Your task to perform on an android device: Search for "acer nitro" on bestbuy, select the first entry, add it to the cart, then select checkout. Image 0: 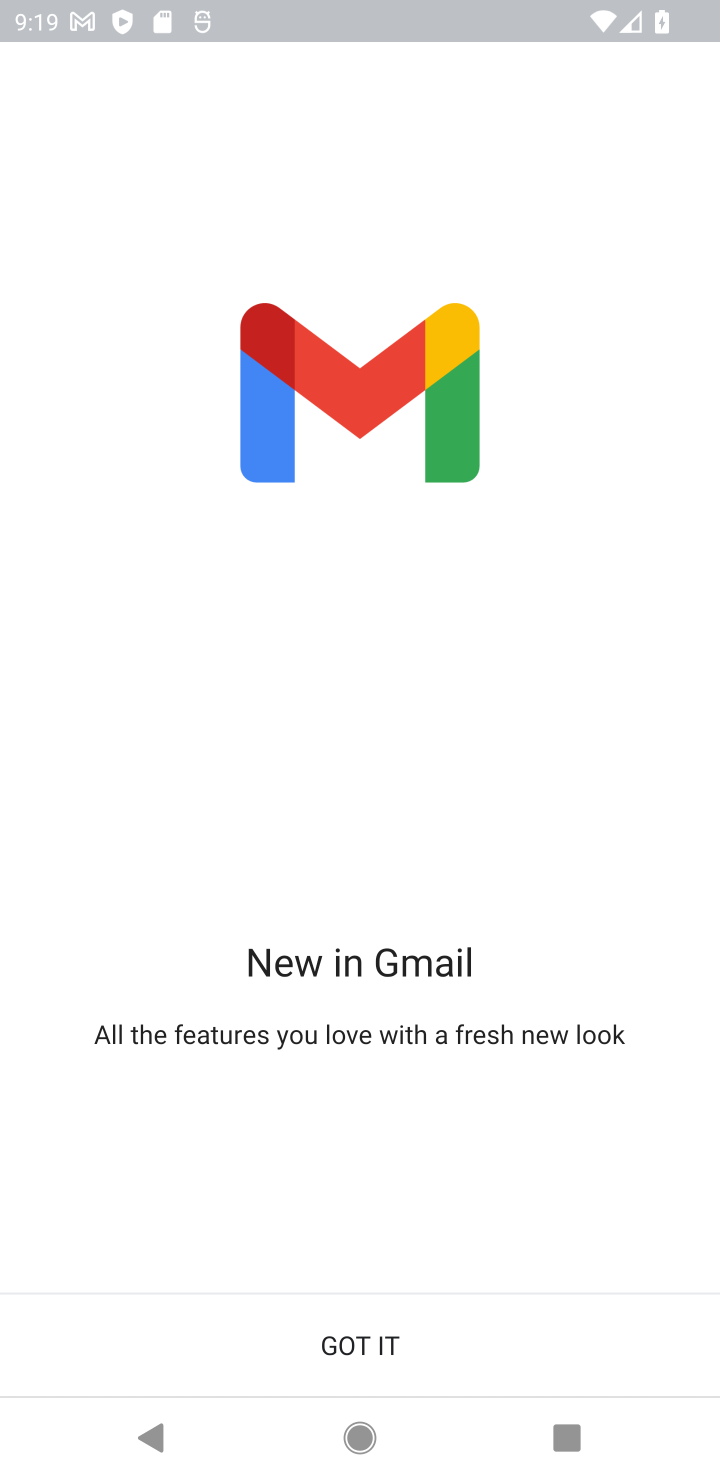
Step 0: press home button
Your task to perform on an android device: Search for "acer nitro" on bestbuy, select the first entry, add it to the cart, then select checkout. Image 1: 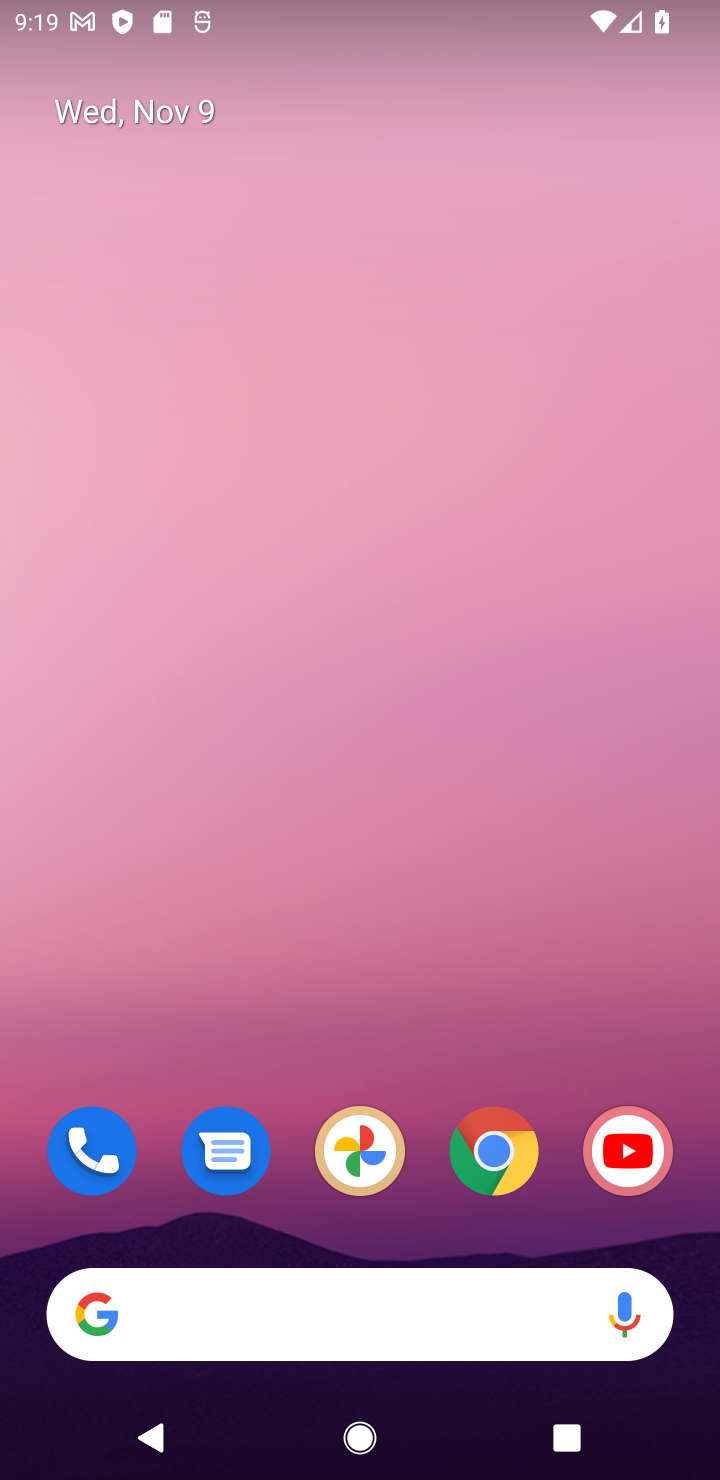
Step 1: click (485, 1148)
Your task to perform on an android device: Search for "acer nitro" on bestbuy, select the first entry, add it to the cart, then select checkout. Image 2: 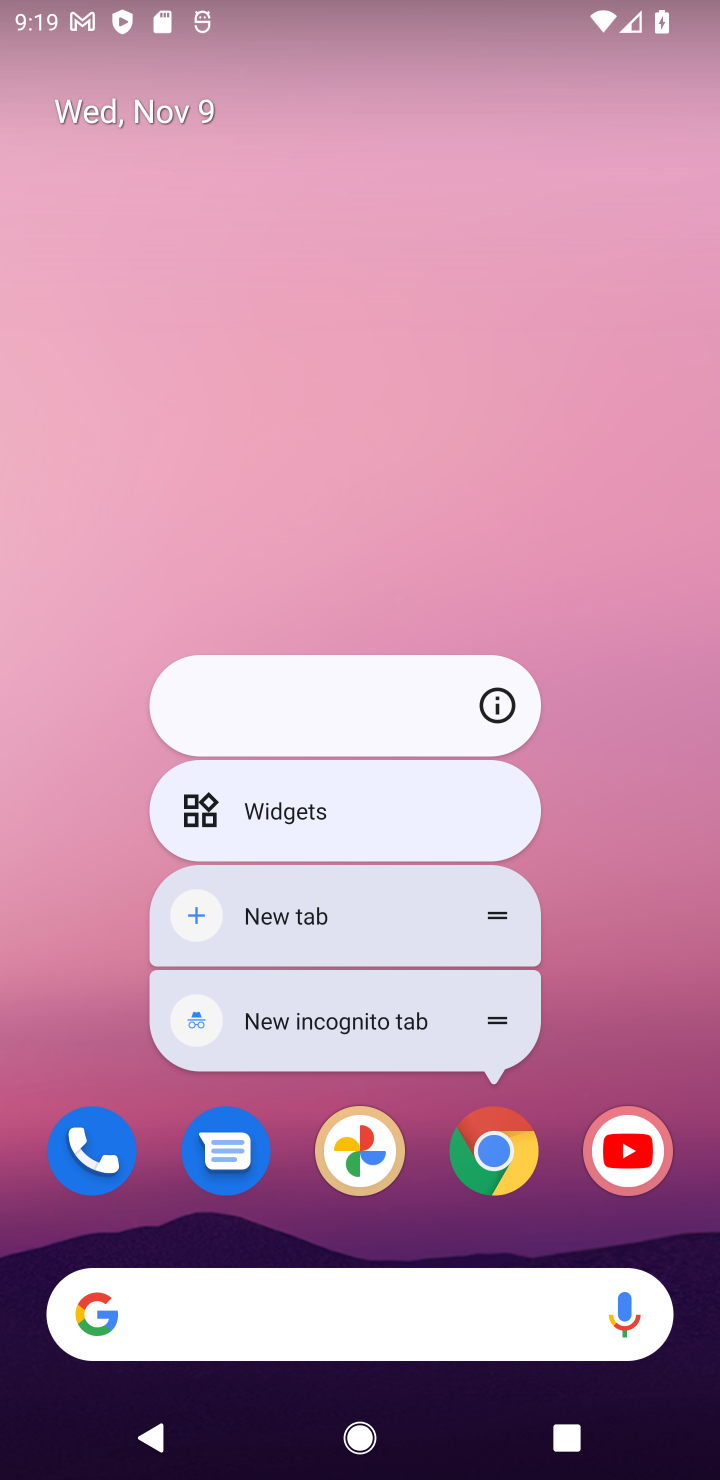
Step 2: click (502, 1171)
Your task to perform on an android device: Search for "acer nitro" on bestbuy, select the first entry, add it to the cart, then select checkout. Image 3: 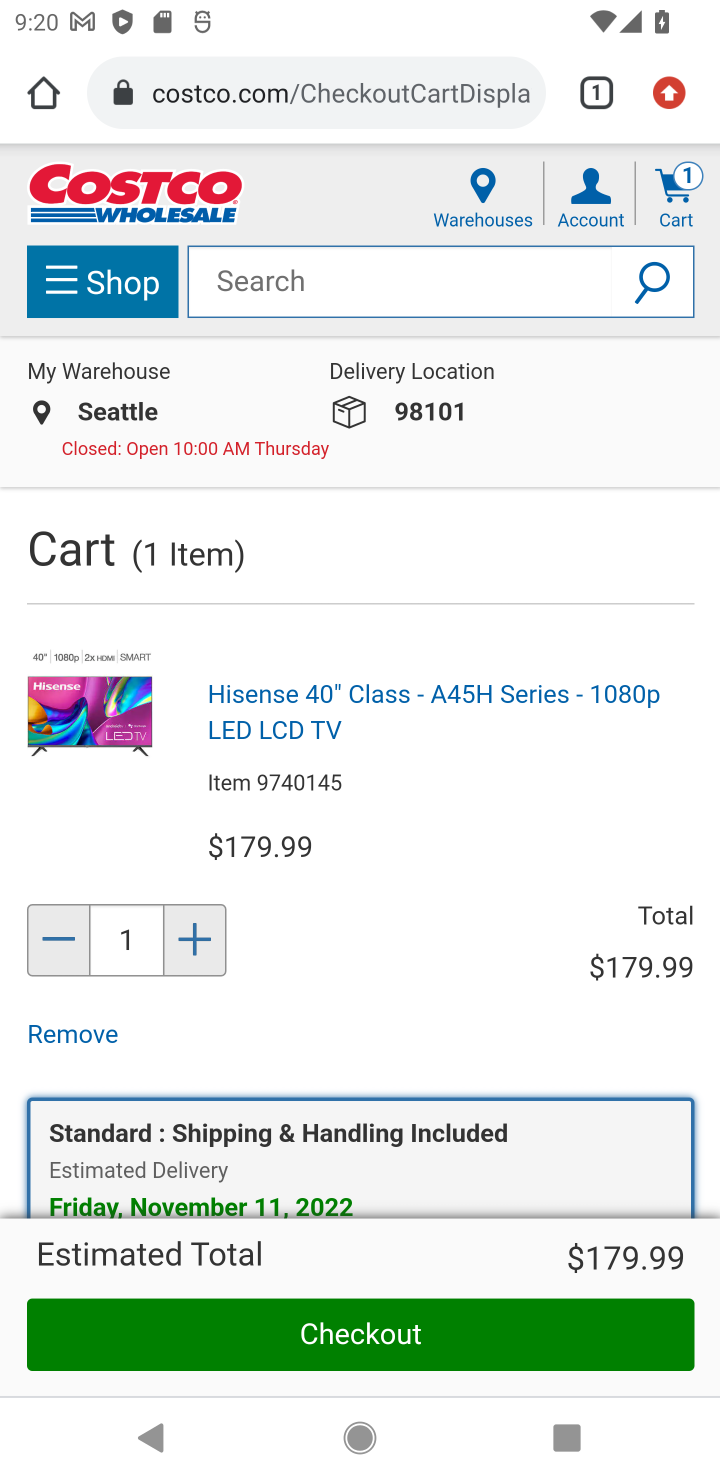
Step 3: click (234, 100)
Your task to perform on an android device: Search for "acer nitro" on bestbuy, select the first entry, add it to the cart, then select checkout. Image 4: 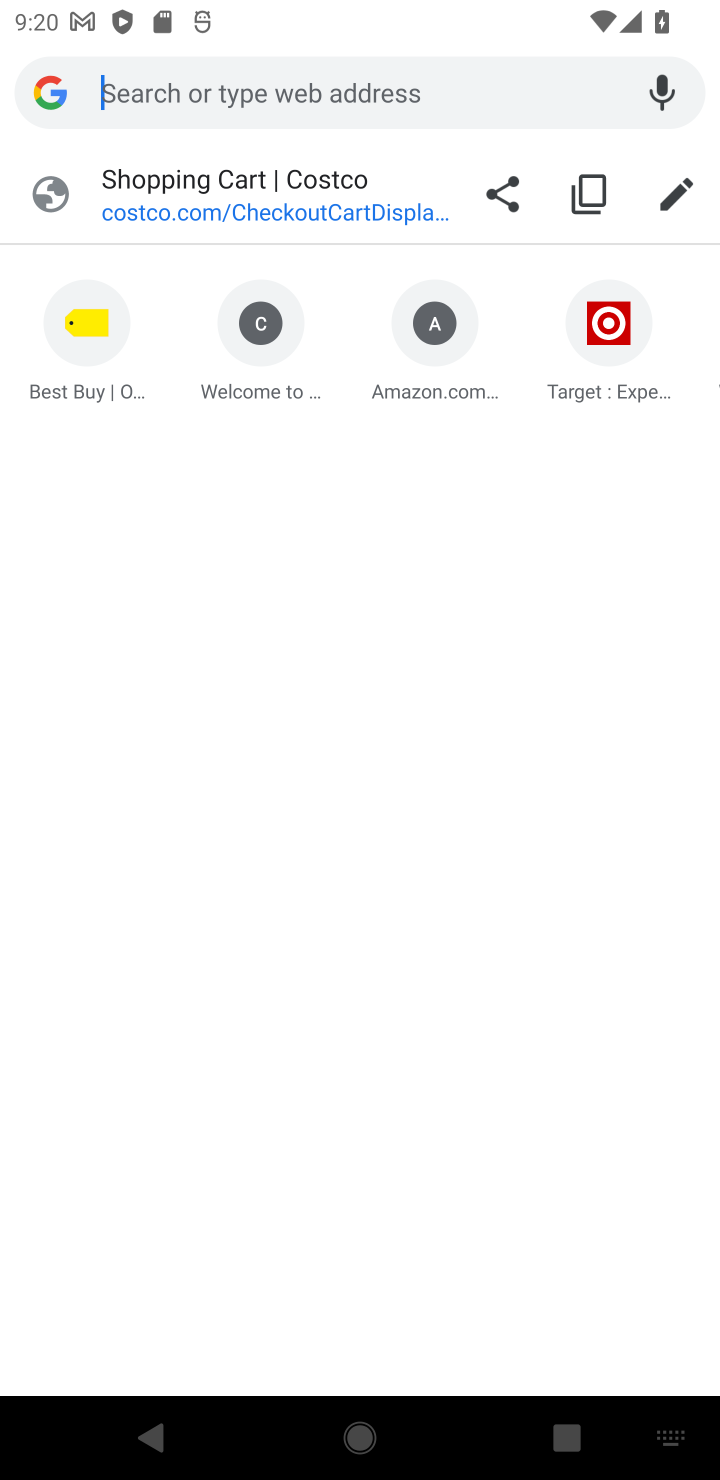
Step 4: type "bestbuy"
Your task to perform on an android device: Search for "acer nitro" on bestbuy, select the first entry, add it to the cart, then select checkout. Image 5: 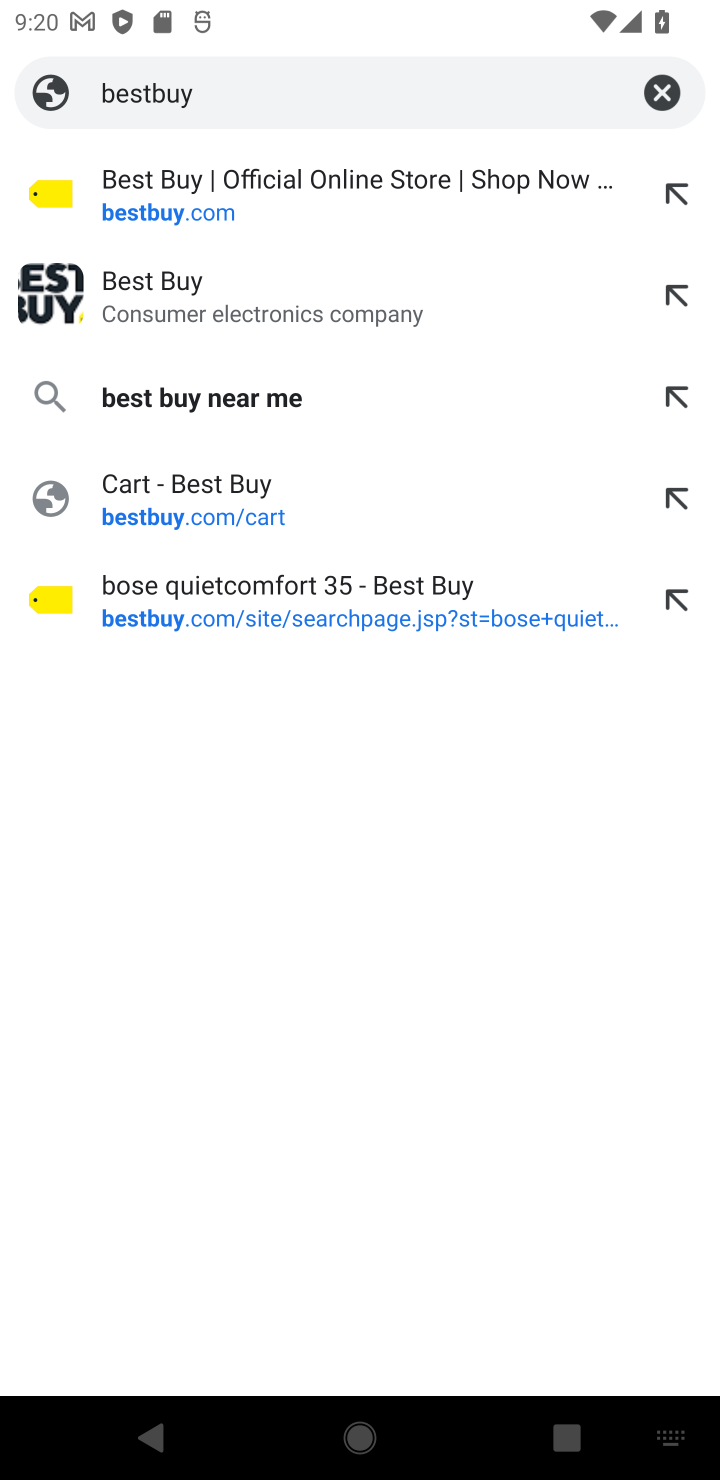
Step 5: press enter
Your task to perform on an android device: Search for "acer nitro" on bestbuy, select the first entry, add it to the cart, then select checkout. Image 6: 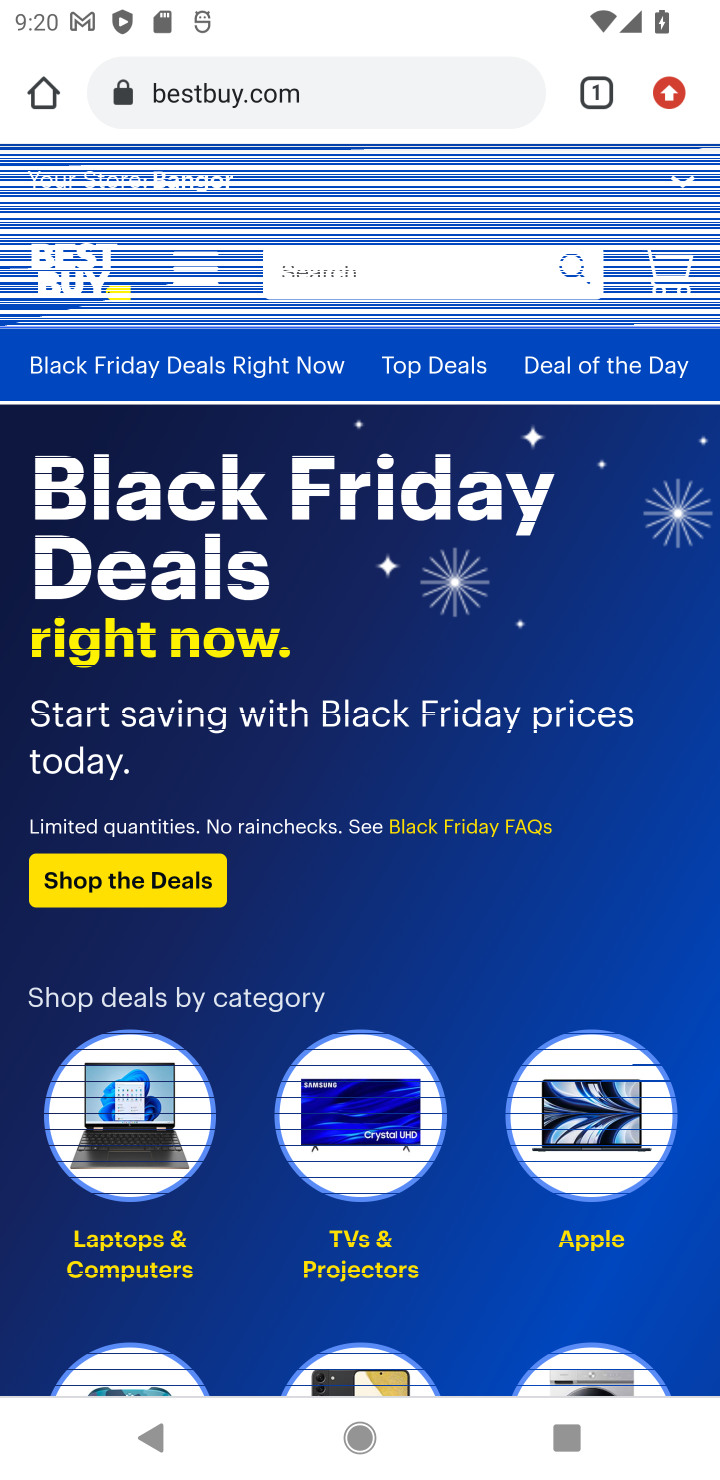
Step 6: click (416, 275)
Your task to perform on an android device: Search for "acer nitro" on bestbuy, select the first entry, add it to the cart, then select checkout. Image 7: 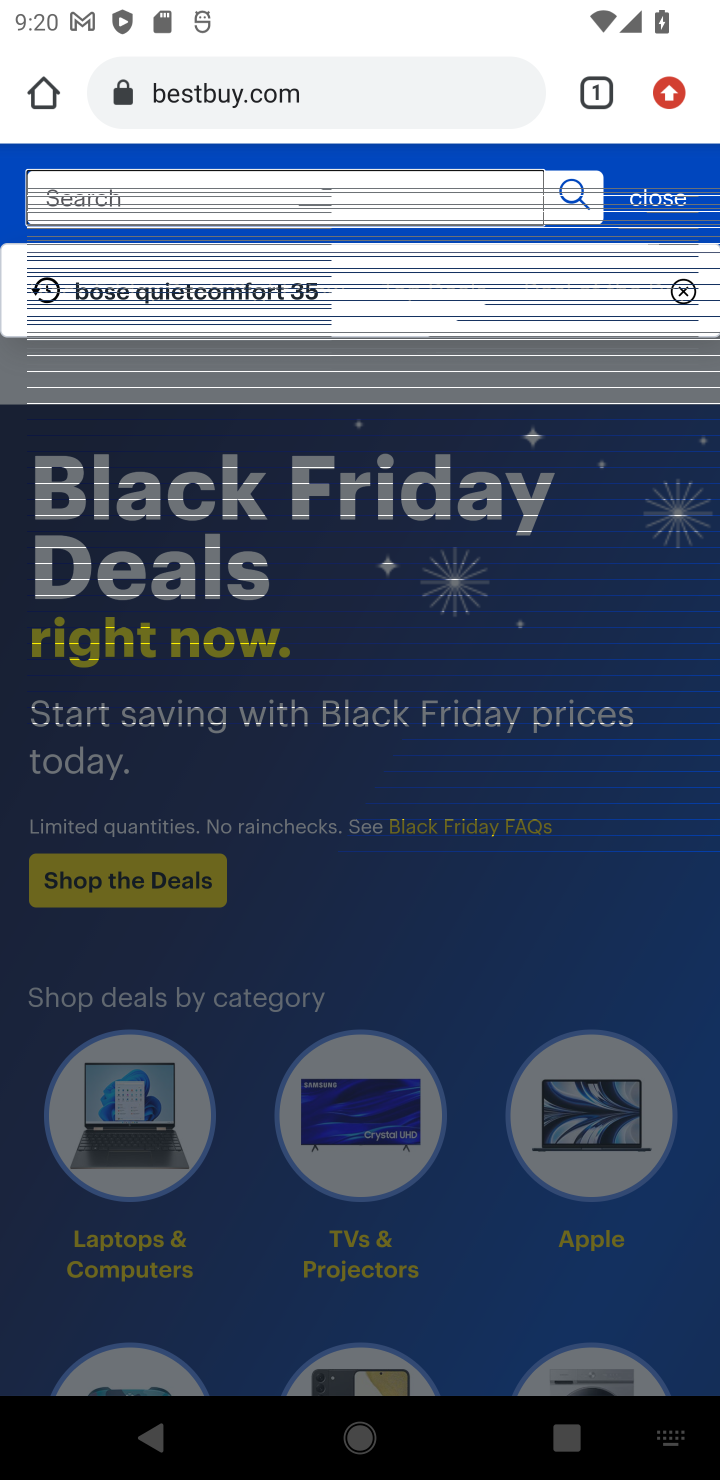
Step 7: type "acer nitro"
Your task to perform on an android device: Search for "acer nitro" on bestbuy, select the first entry, add it to the cart, then select checkout. Image 8: 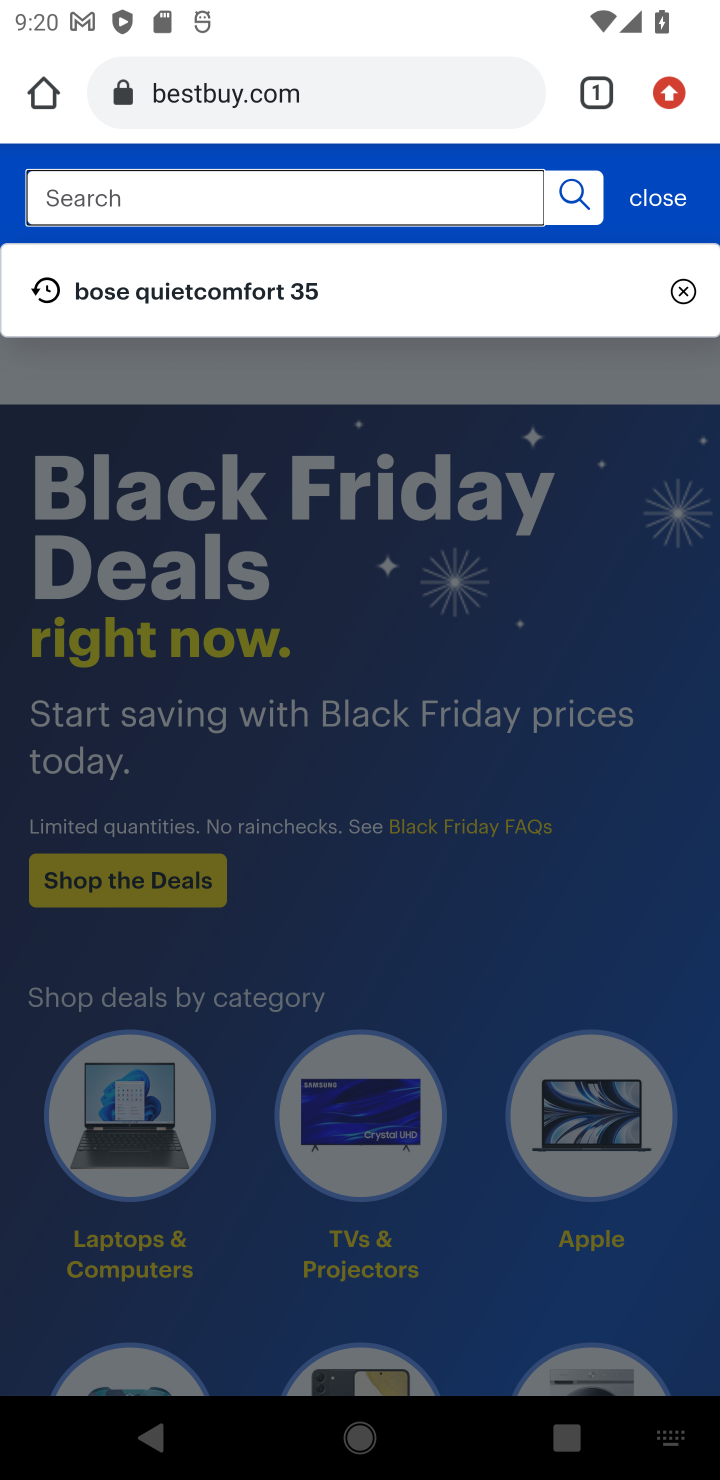
Step 8: press enter
Your task to perform on an android device: Search for "acer nitro" on bestbuy, select the first entry, add it to the cart, then select checkout. Image 9: 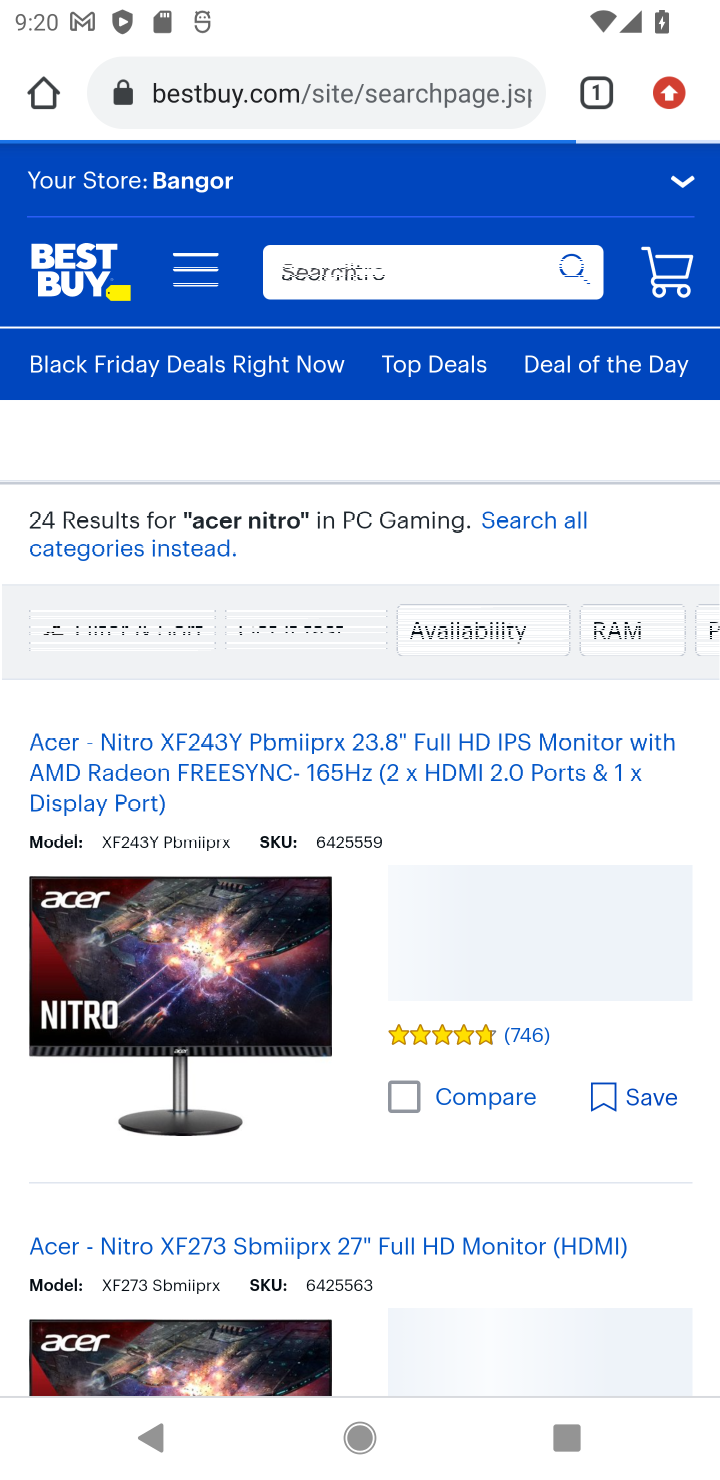
Step 9: press enter
Your task to perform on an android device: Search for "acer nitro" on bestbuy, select the first entry, add it to the cart, then select checkout. Image 10: 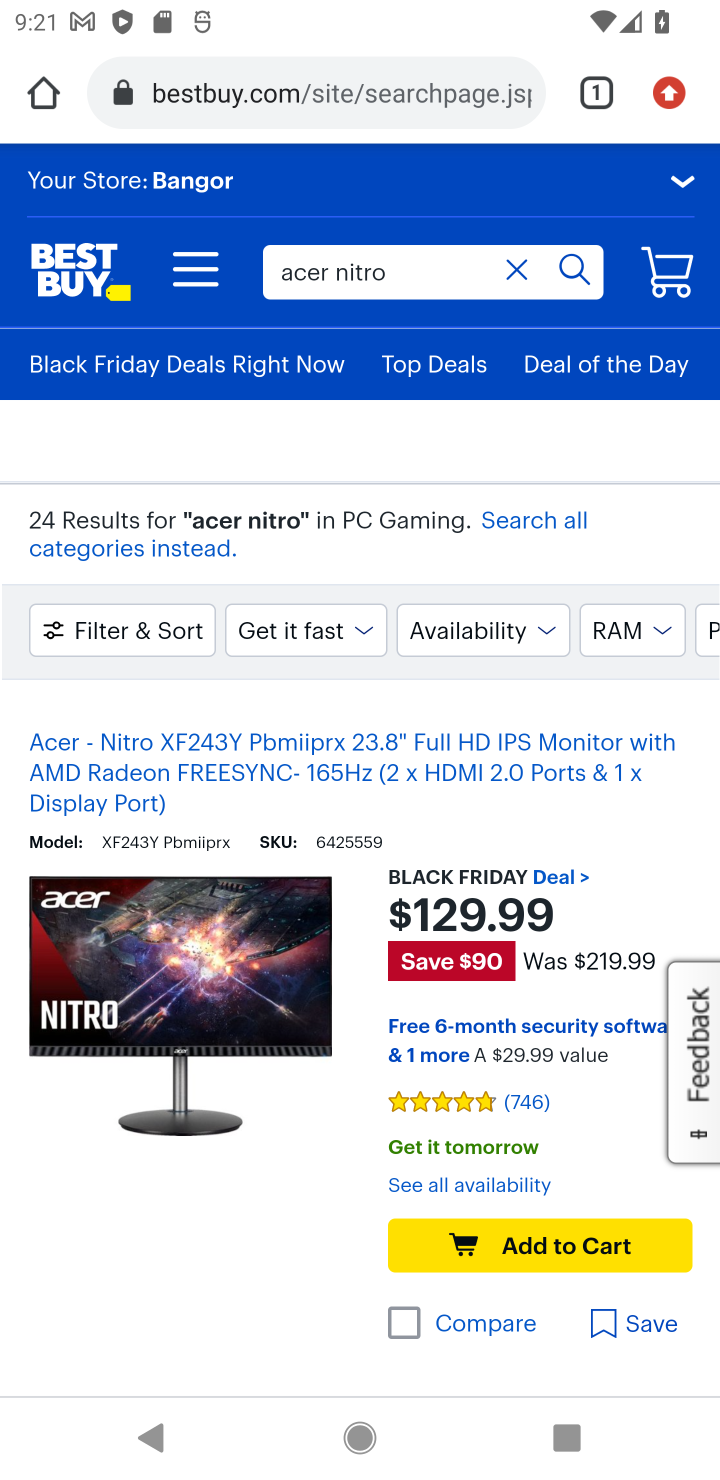
Step 10: click (501, 1251)
Your task to perform on an android device: Search for "acer nitro" on bestbuy, select the first entry, add it to the cart, then select checkout. Image 11: 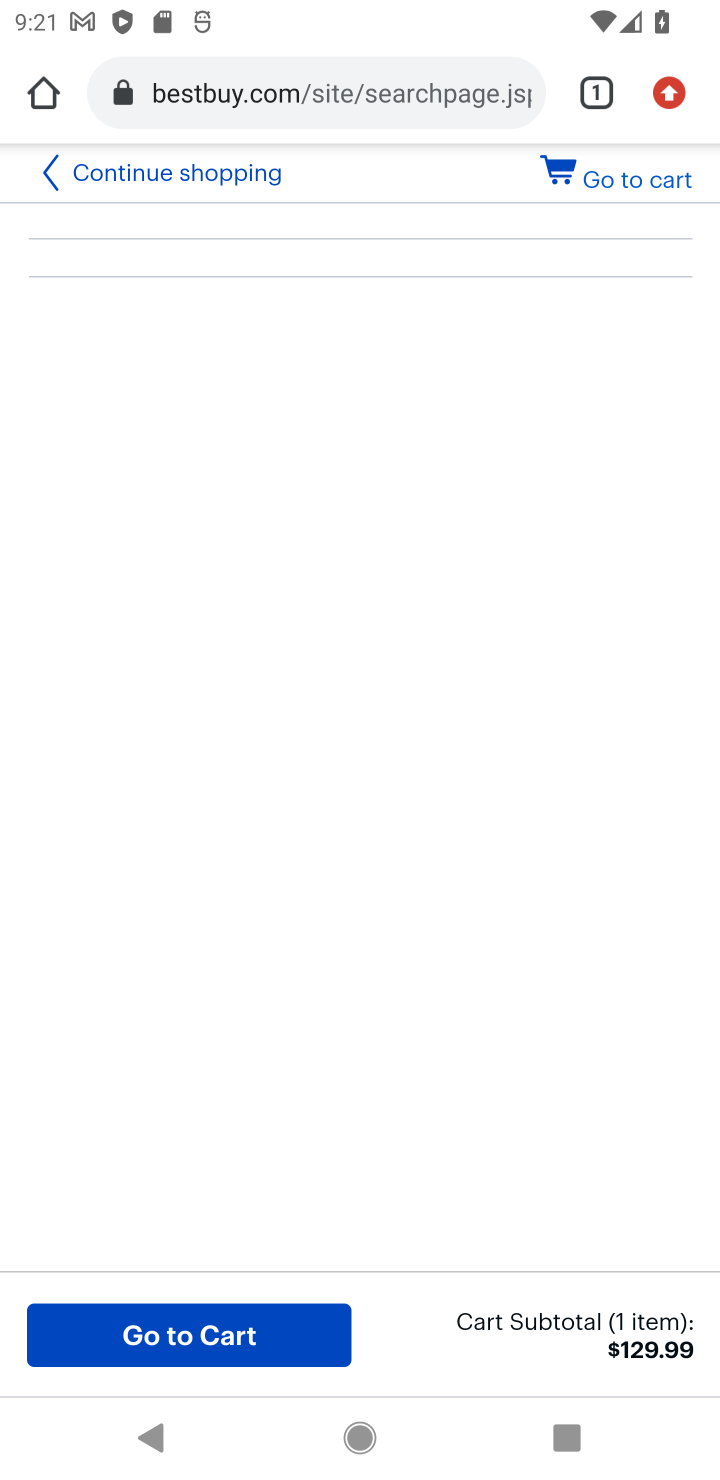
Step 11: click (151, 1353)
Your task to perform on an android device: Search for "acer nitro" on bestbuy, select the first entry, add it to the cart, then select checkout. Image 12: 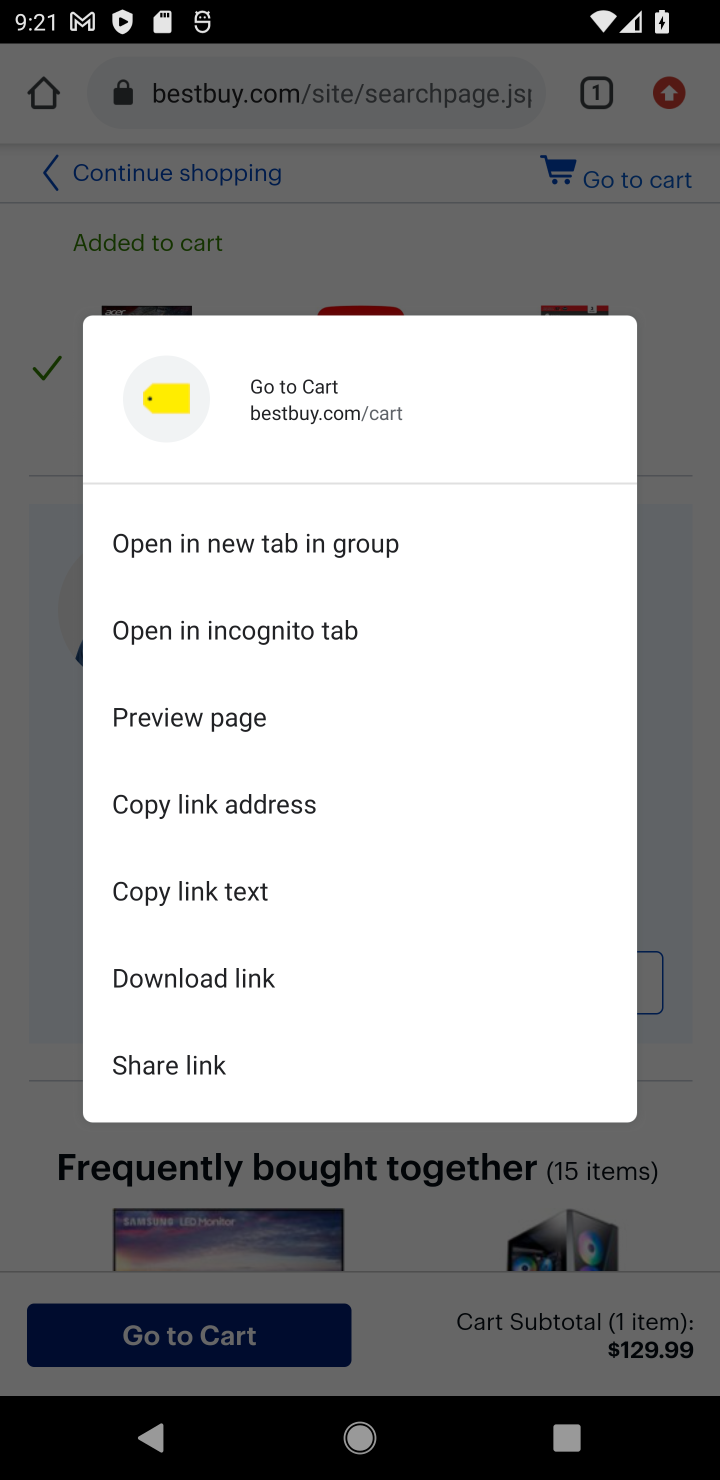
Step 12: click (347, 1219)
Your task to perform on an android device: Search for "acer nitro" on bestbuy, select the first entry, add it to the cart, then select checkout. Image 13: 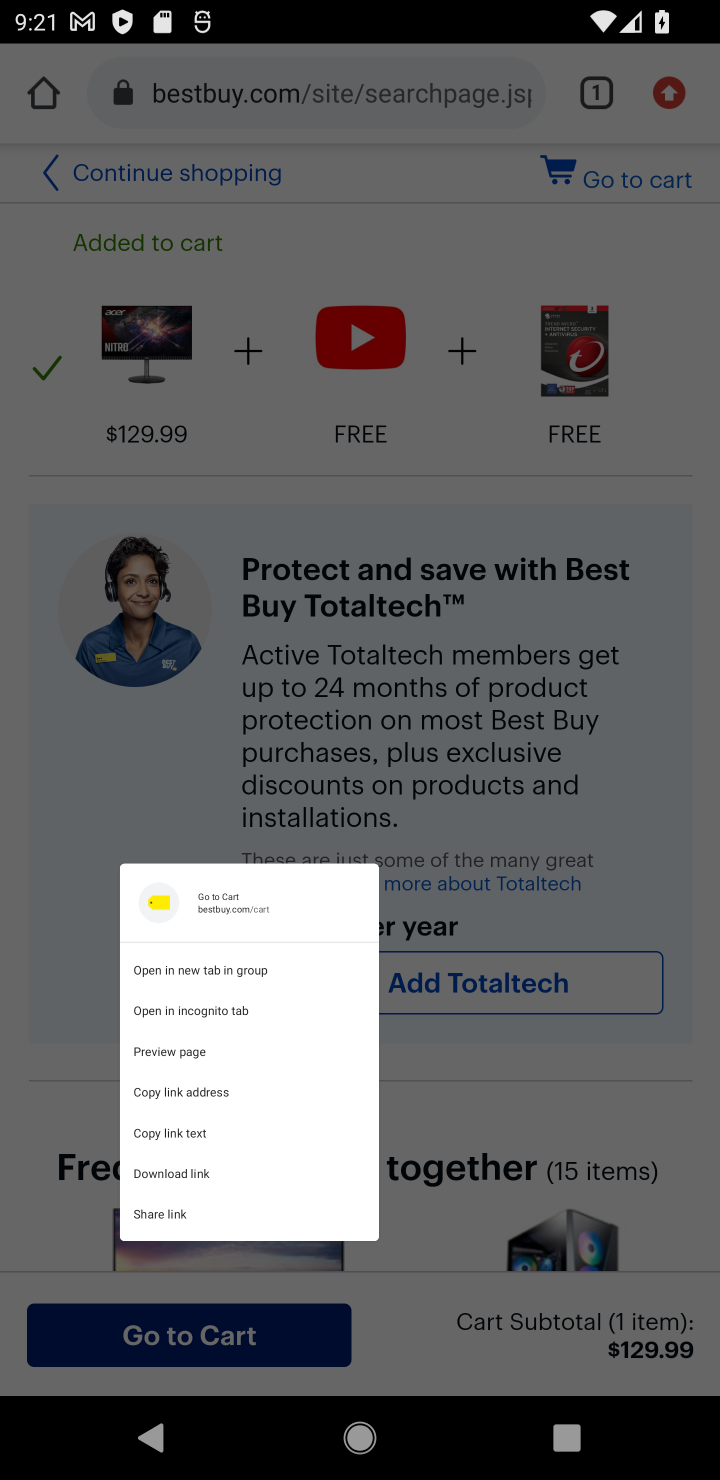
Step 13: click (397, 1211)
Your task to perform on an android device: Search for "acer nitro" on bestbuy, select the first entry, add it to the cart, then select checkout. Image 14: 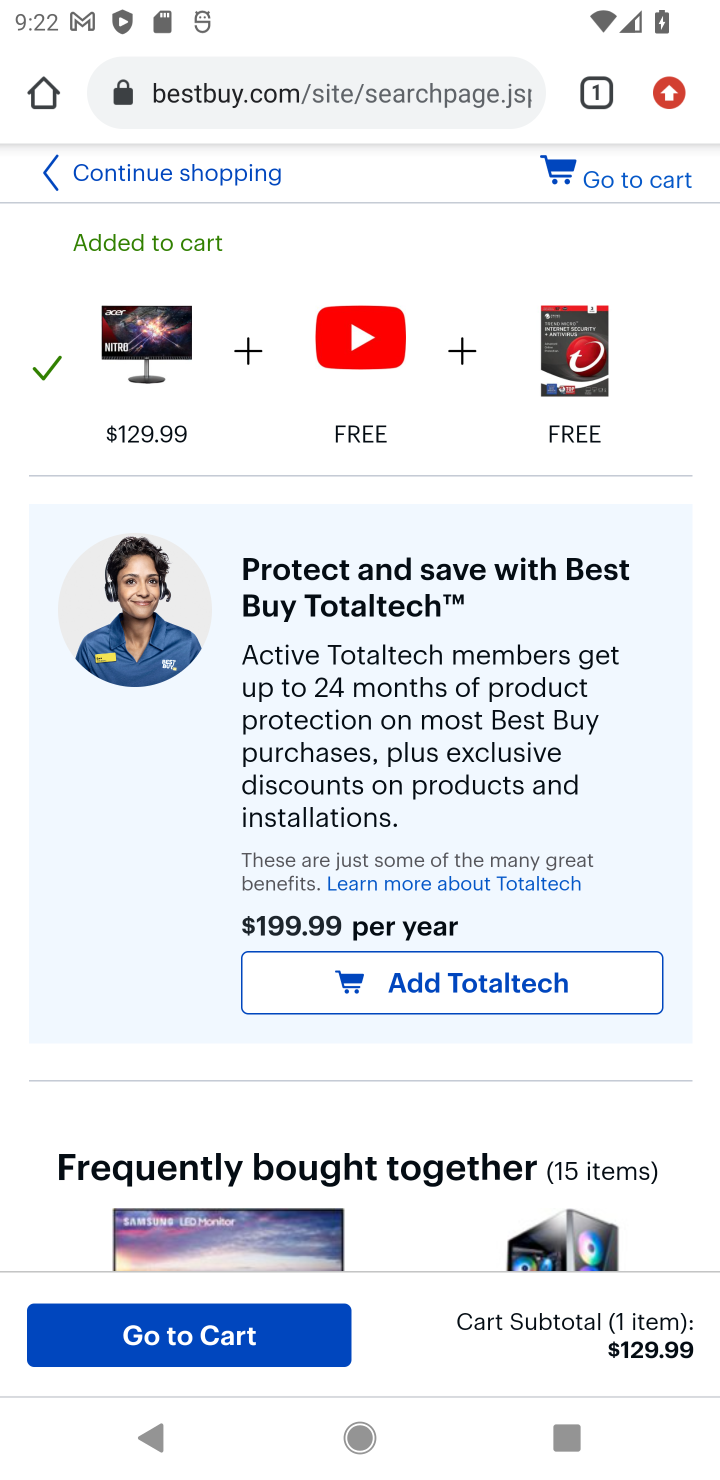
Step 14: click (209, 1346)
Your task to perform on an android device: Search for "acer nitro" on bestbuy, select the first entry, add it to the cart, then select checkout. Image 15: 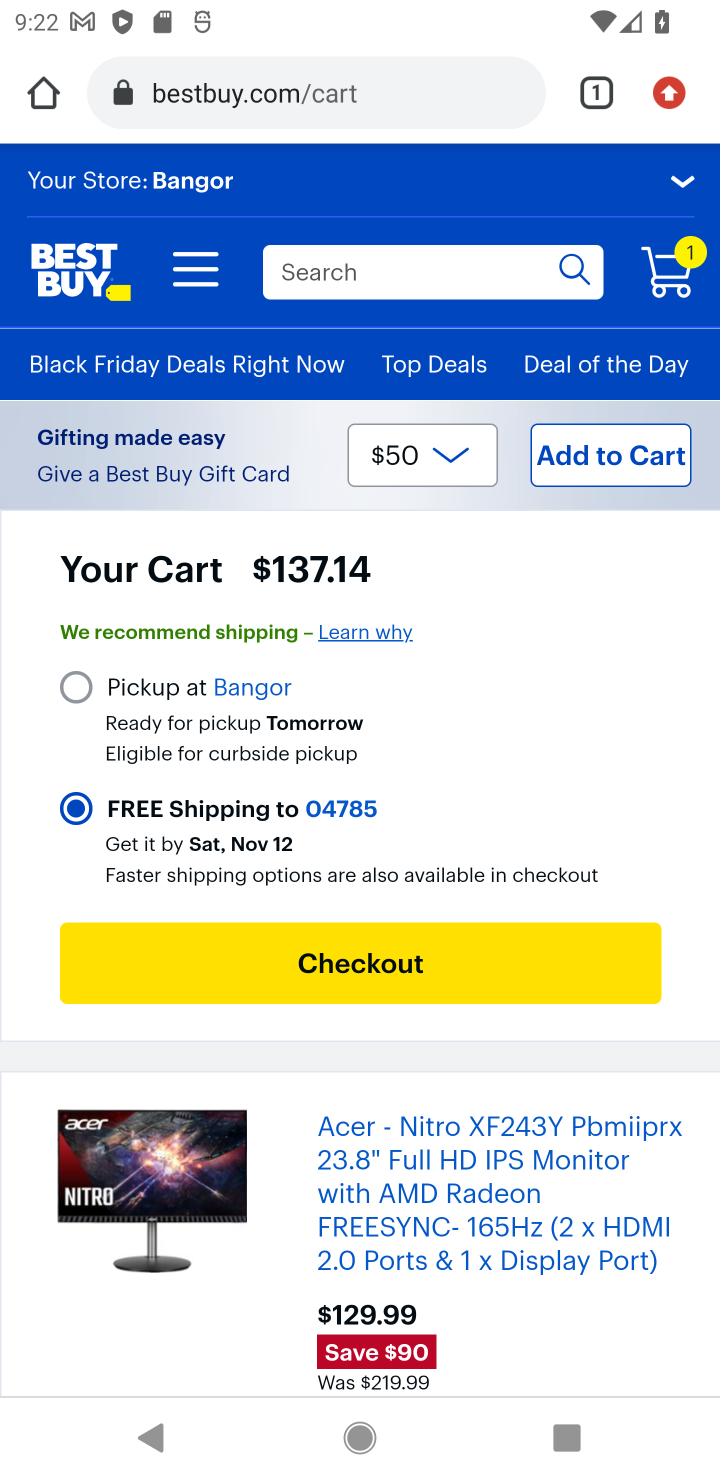
Step 15: click (303, 966)
Your task to perform on an android device: Search for "acer nitro" on bestbuy, select the first entry, add it to the cart, then select checkout. Image 16: 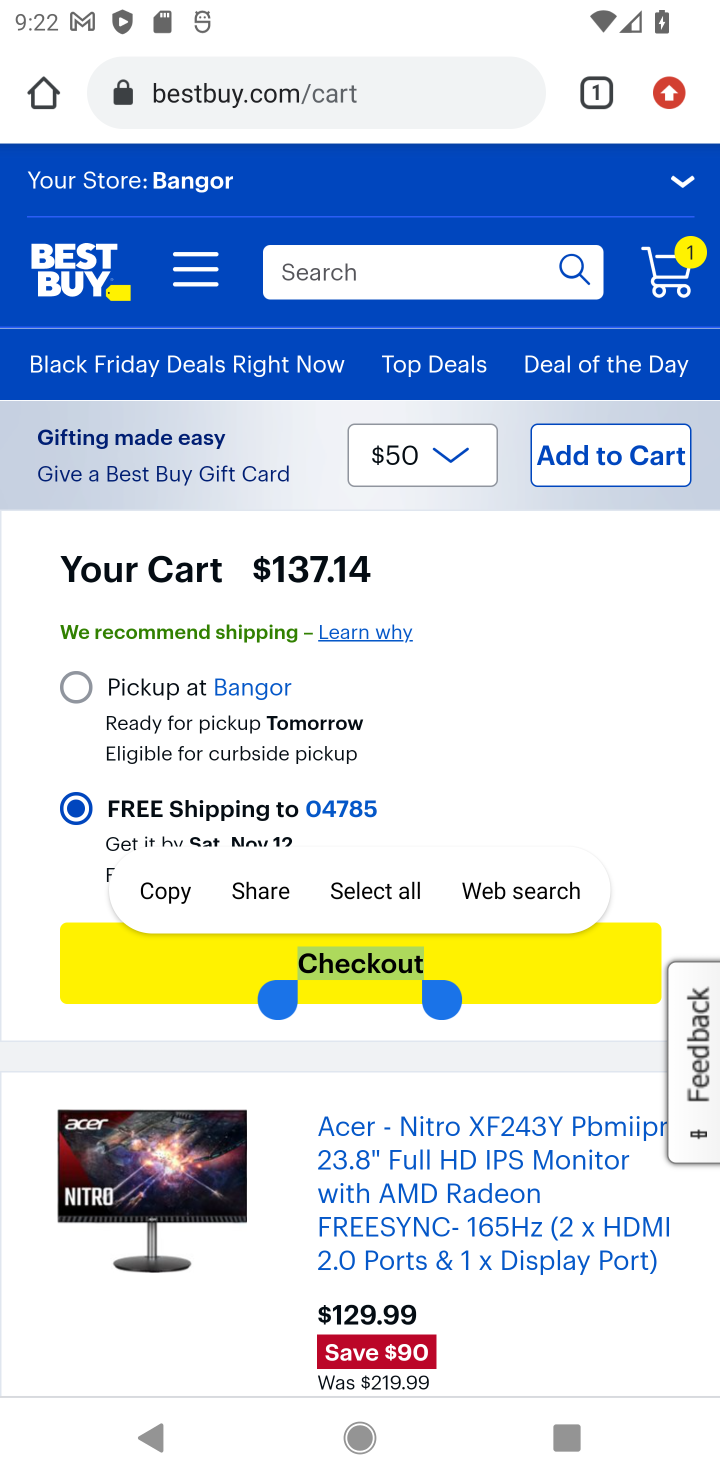
Step 16: click (194, 1034)
Your task to perform on an android device: Search for "acer nitro" on bestbuy, select the first entry, add it to the cart, then select checkout. Image 17: 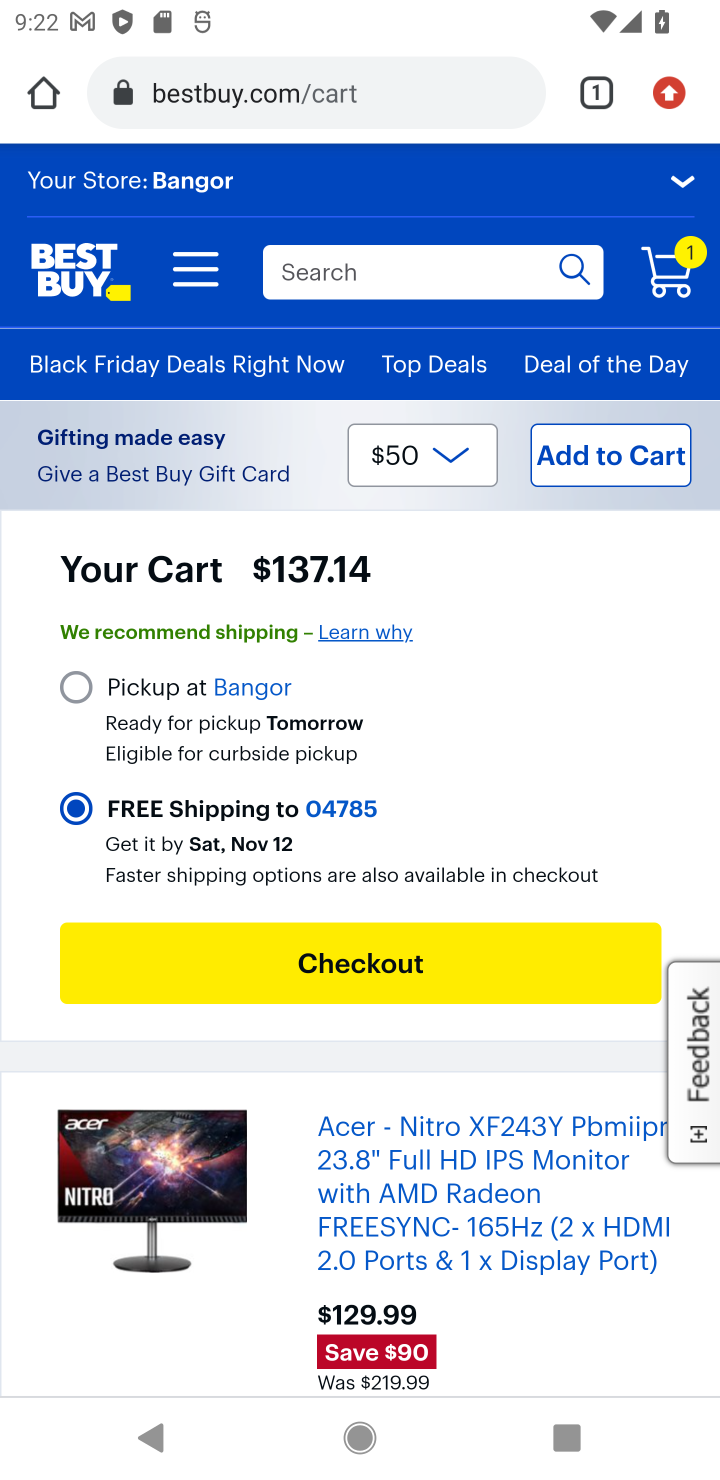
Step 17: click (204, 987)
Your task to perform on an android device: Search for "acer nitro" on bestbuy, select the first entry, add it to the cart, then select checkout. Image 18: 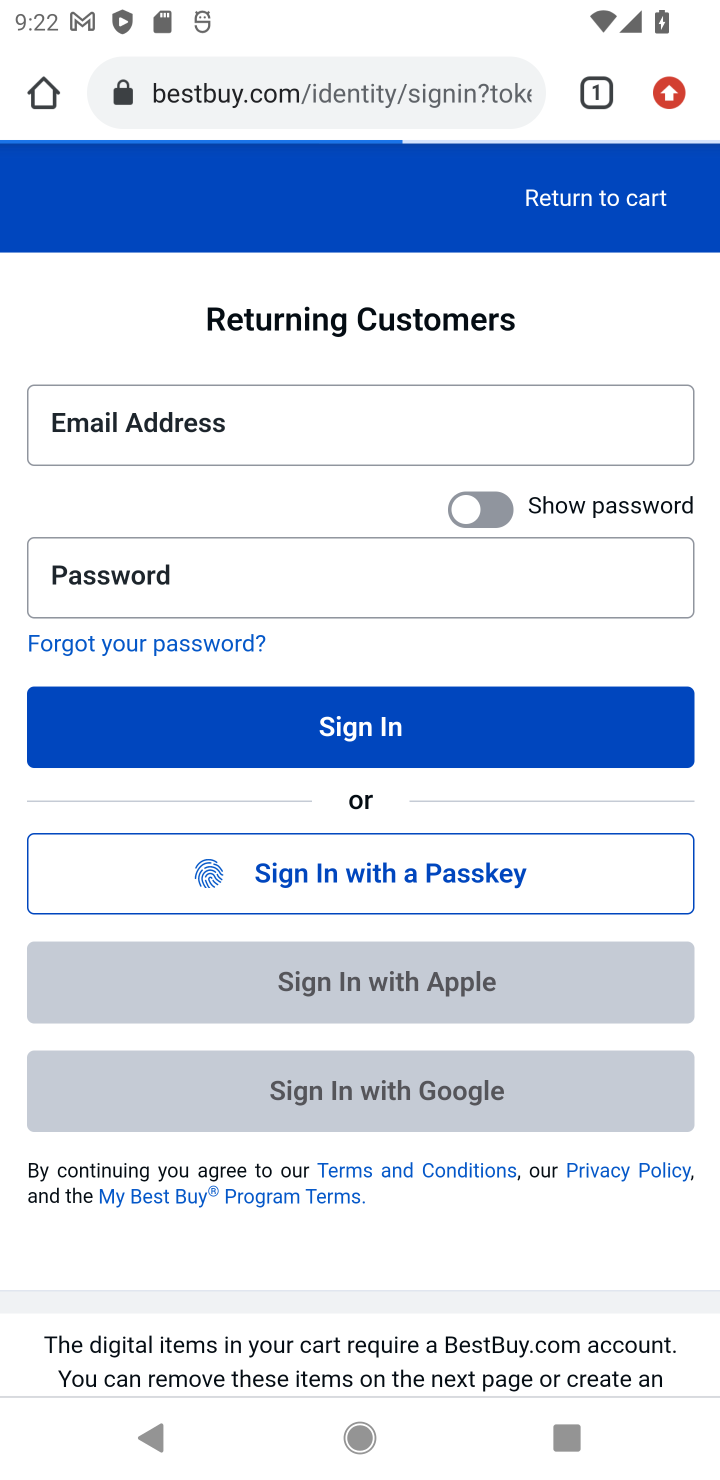
Step 18: task complete